Your task to perform on an android device: change your default location settings in chrome Image 0: 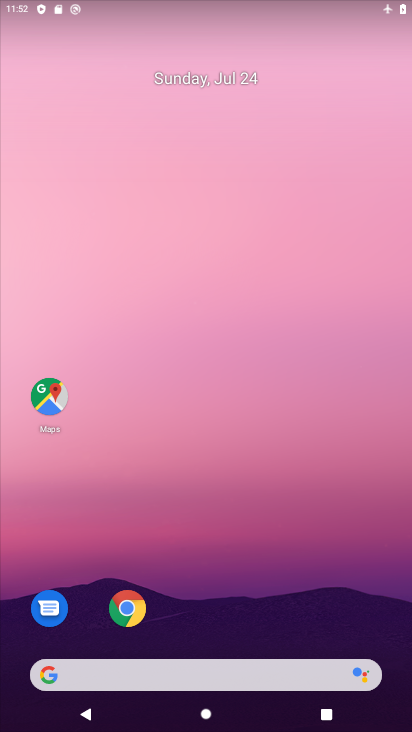
Step 0: click (148, 615)
Your task to perform on an android device: change your default location settings in chrome Image 1: 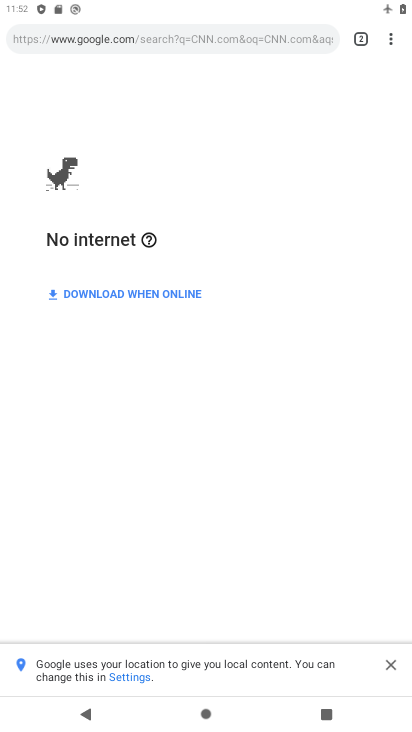
Step 1: click (391, 48)
Your task to perform on an android device: change your default location settings in chrome Image 2: 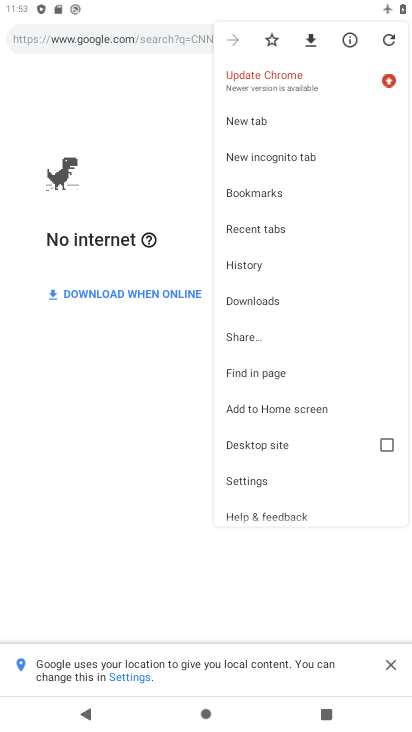
Step 2: click (259, 488)
Your task to perform on an android device: change your default location settings in chrome Image 3: 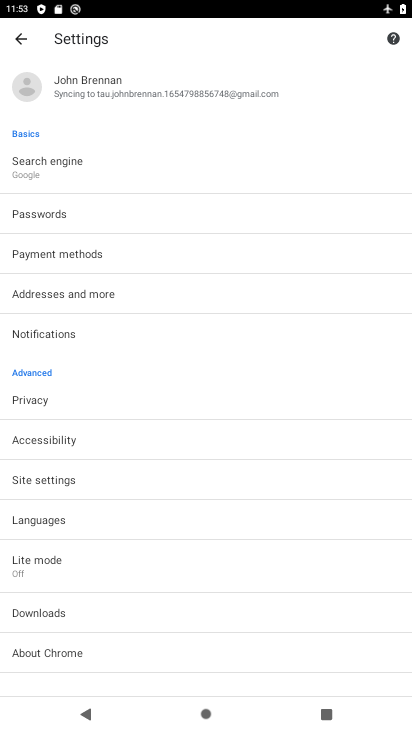
Step 3: drag from (194, 635) to (207, 401)
Your task to perform on an android device: change your default location settings in chrome Image 4: 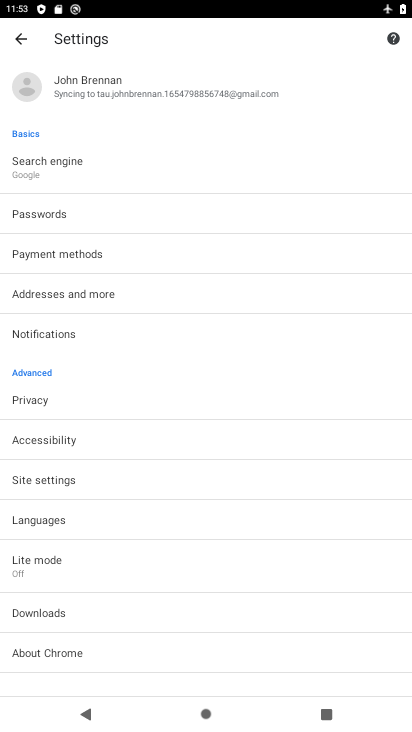
Step 4: drag from (121, 580) to (161, 302)
Your task to perform on an android device: change your default location settings in chrome Image 5: 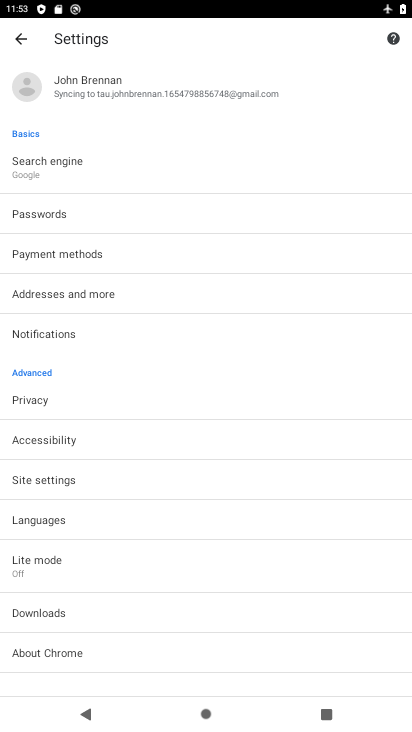
Step 5: drag from (157, 325) to (145, 473)
Your task to perform on an android device: change your default location settings in chrome Image 6: 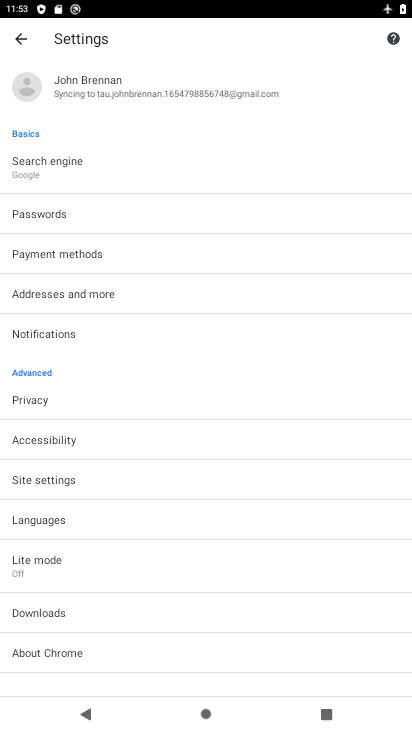
Step 6: drag from (132, 646) to (158, 257)
Your task to perform on an android device: change your default location settings in chrome Image 7: 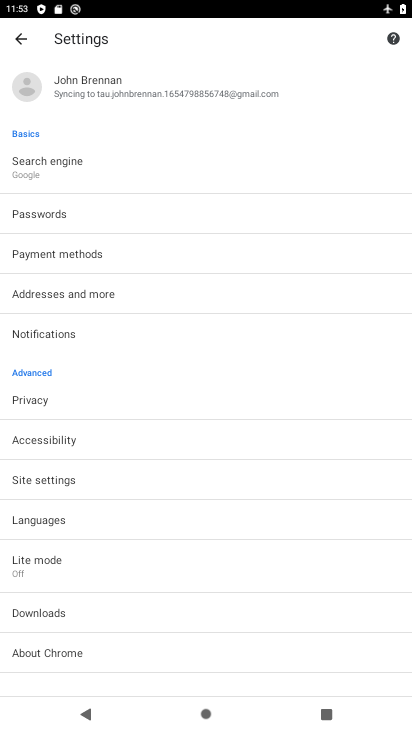
Step 7: click (76, 480)
Your task to perform on an android device: change your default location settings in chrome Image 8: 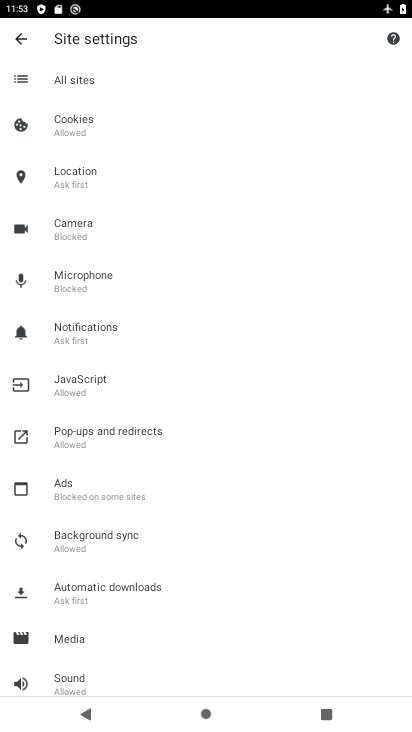
Step 8: click (93, 195)
Your task to perform on an android device: change your default location settings in chrome Image 9: 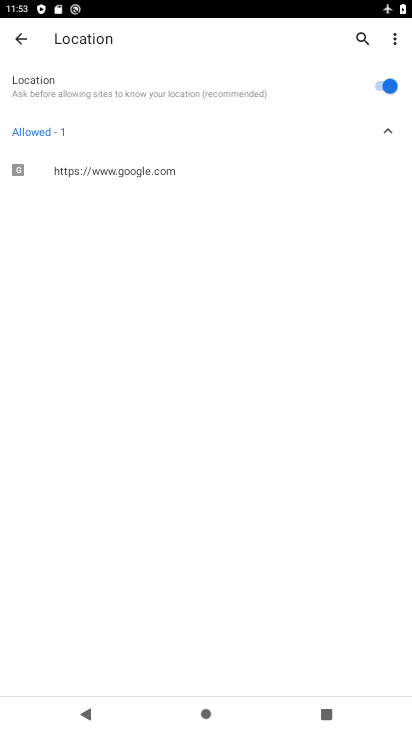
Step 9: click (373, 92)
Your task to perform on an android device: change your default location settings in chrome Image 10: 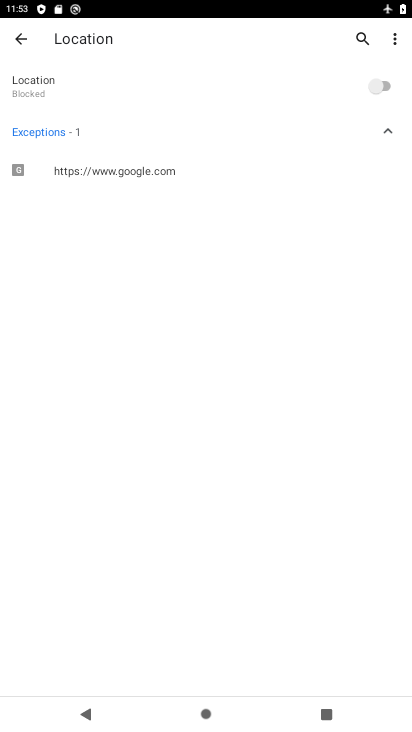
Step 10: task complete